Your task to perform on an android device: change the upload size in google photos Image 0: 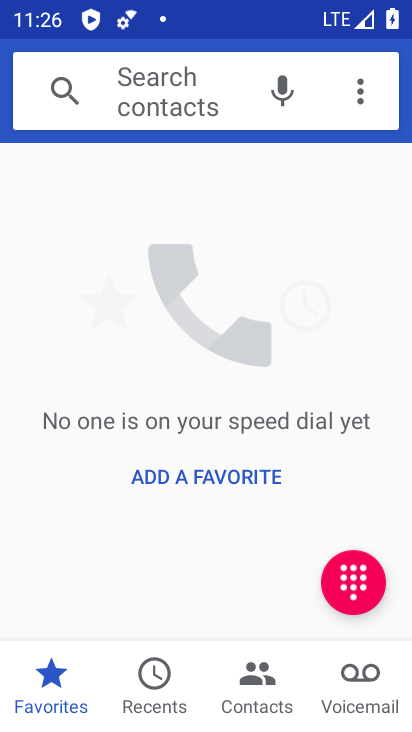
Step 0: press home button
Your task to perform on an android device: change the upload size in google photos Image 1: 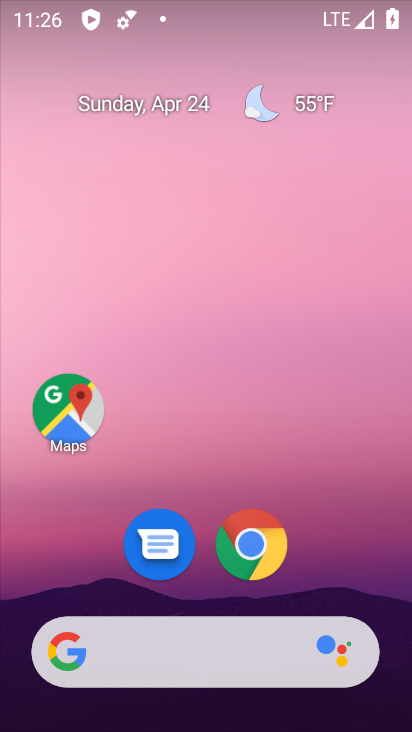
Step 1: drag from (327, 436) to (132, 75)
Your task to perform on an android device: change the upload size in google photos Image 2: 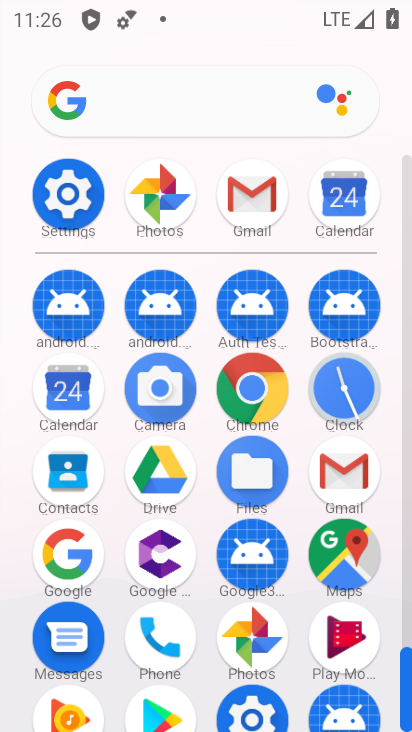
Step 2: click (161, 195)
Your task to perform on an android device: change the upload size in google photos Image 3: 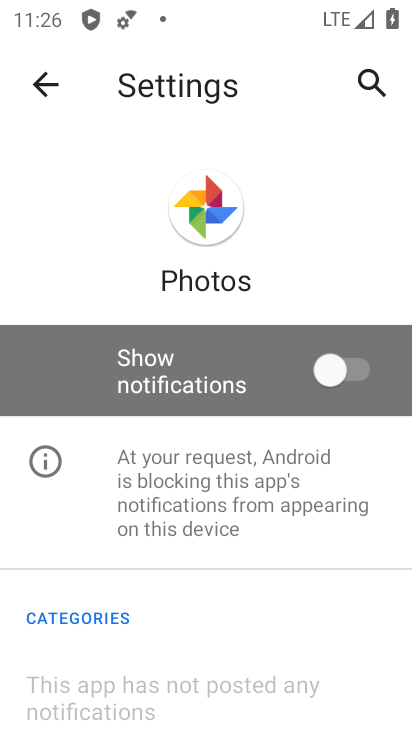
Step 3: press back button
Your task to perform on an android device: change the upload size in google photos Image 4: 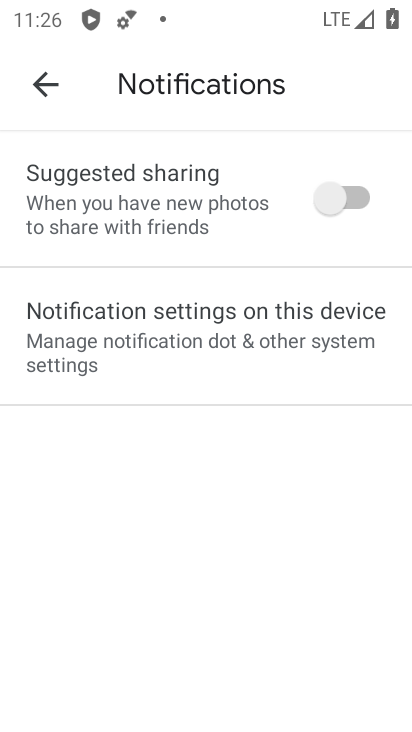
Step 4: press back button
Your task to perform on an android device: change the upload size in google photos Image 5: 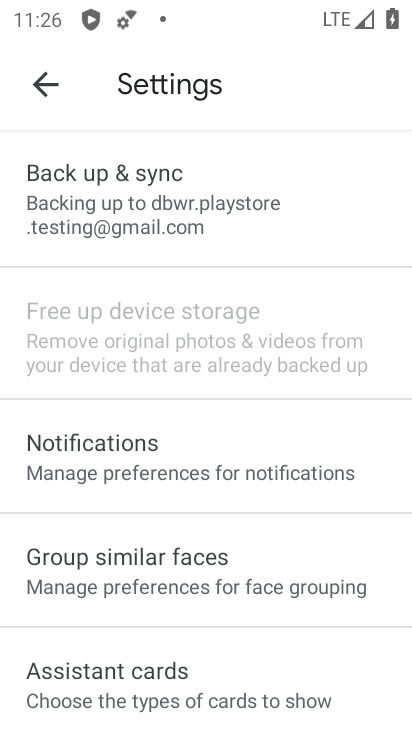
Step 5: click (149, 236)
Your task to perform on an android device: change the upload size in google photos Image 6: 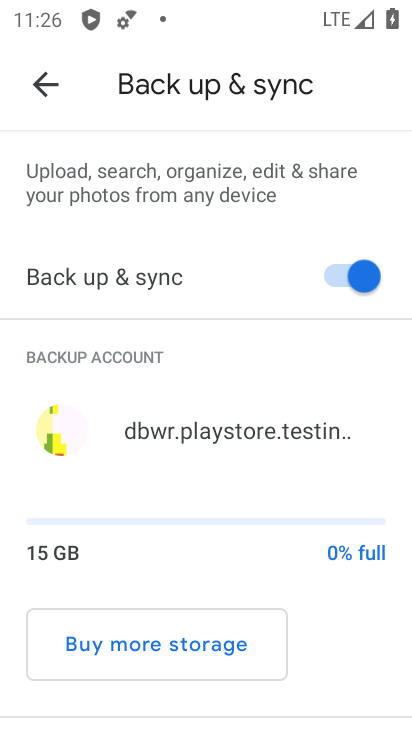
Step 6: drag from (366, 637) to (230, 164)
Your task to perform on an android device: change the upload size in google photos Image 7: 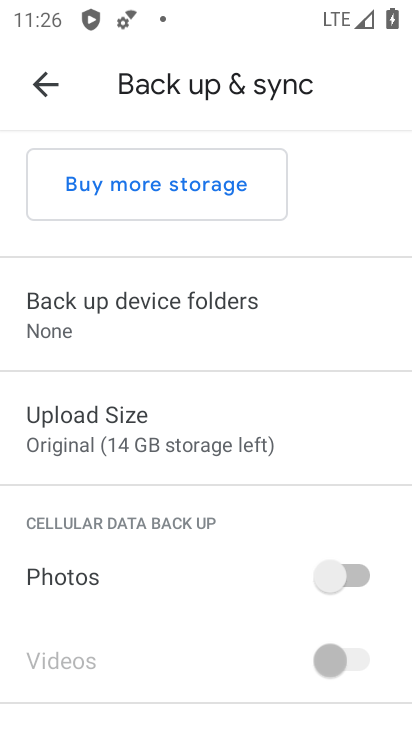
Step 7: click (134, 435)
Your task to perform on an android device: change the upload size in google photos Image 8: 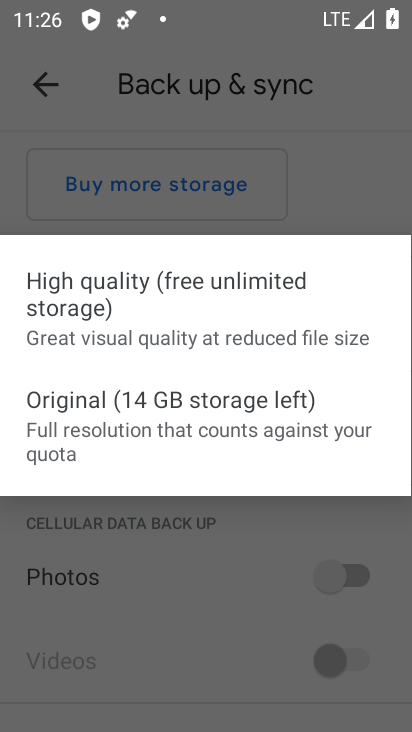
Step 8: click (182, 328)
Your task to perform on an android device: change the upload size in google photos Image 9: 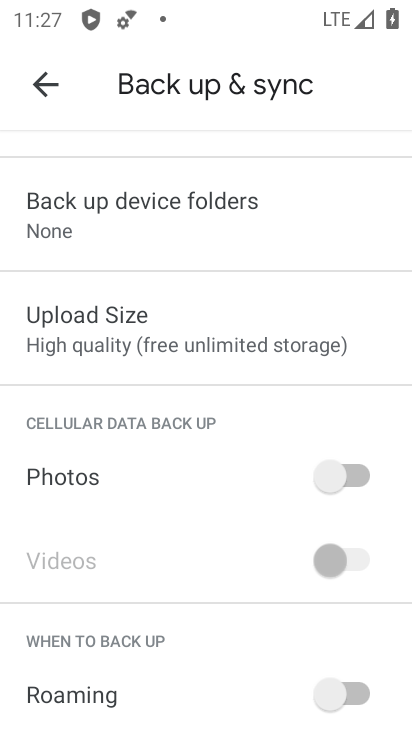
Step 9: task complete